Your task to perform on an android device: change the clock display to analog Image 0: 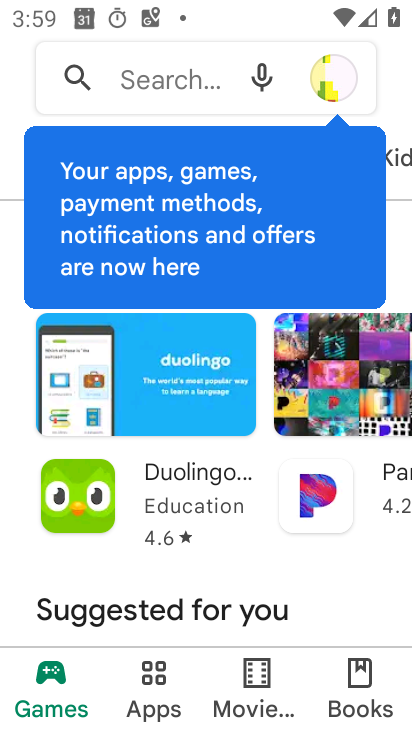
Step 0: press home button
Your task to perform on an android device: change the clock display to analog Image 1: 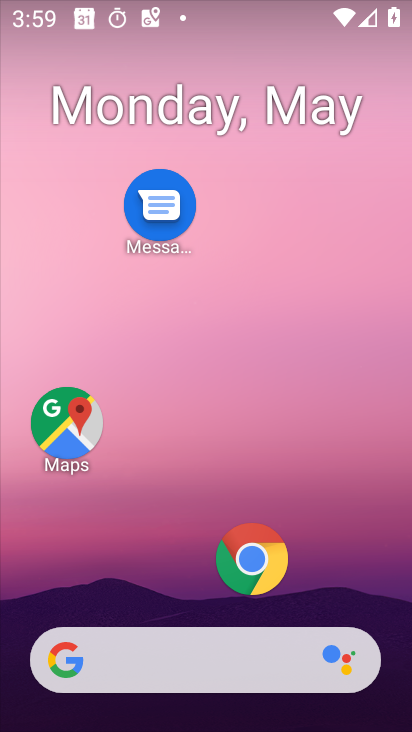
Step 1: drag from (110, 362) to (121, 211)
Your task to perform on an android device: change the clock display to analog Image 2: 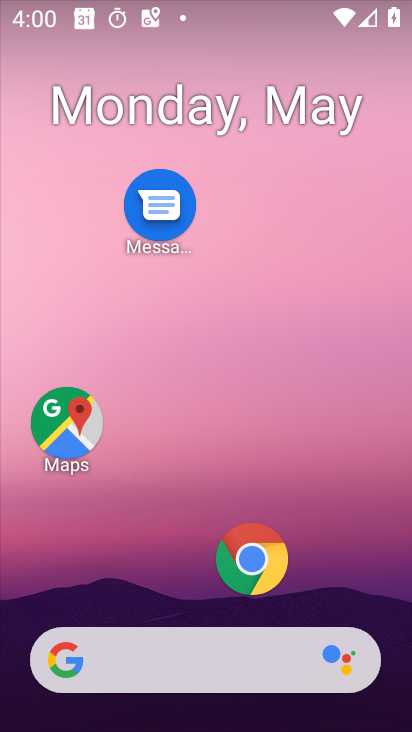
Step 2: drag from (187, 580) to (209, 190)
Your task to perform on an android device: change the clock display to analog Image 3: 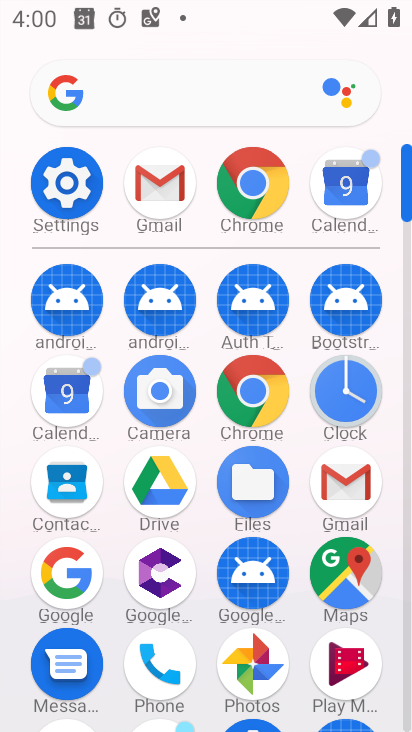
Step 3: click (356, 401)
Your task to perform on an android device: change the clock display to analog Image 4: 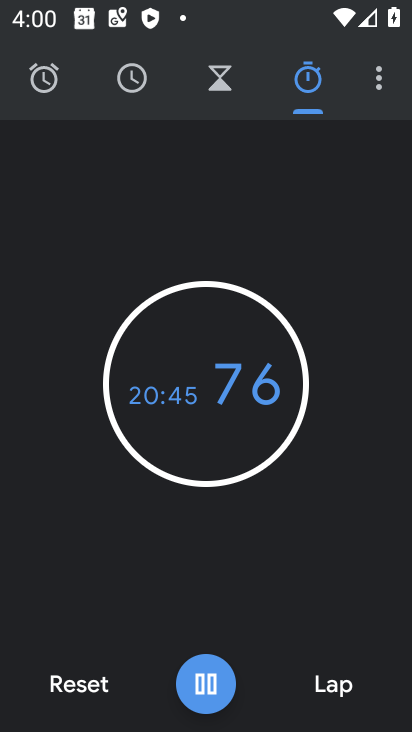
Step 4: click (381, 75)
Your task to perform on an android device: change the clock display to analog Image 5: 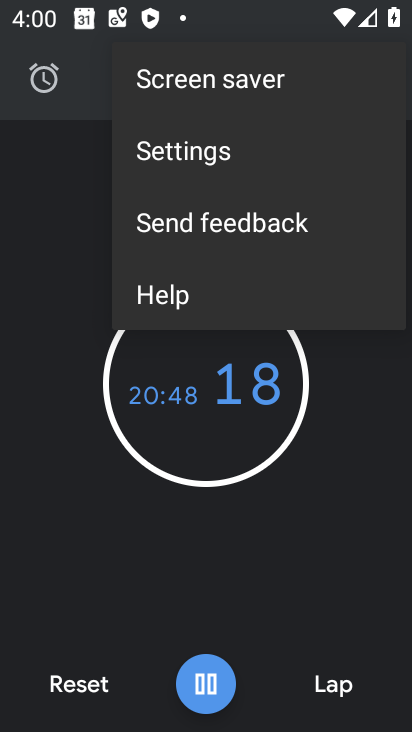
Step 5: click (174, 158)
Your task to perform on an android device: change the clock display to analog Image 6: 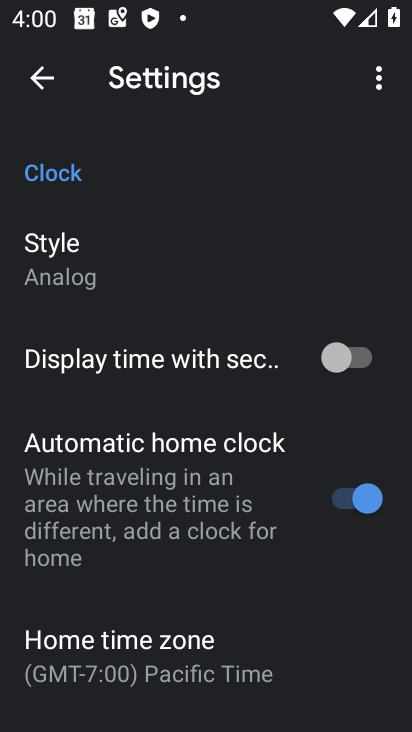
Step 6: click (70, 255)
Your task to perform on an android device: change the clock display to analog Image 7: 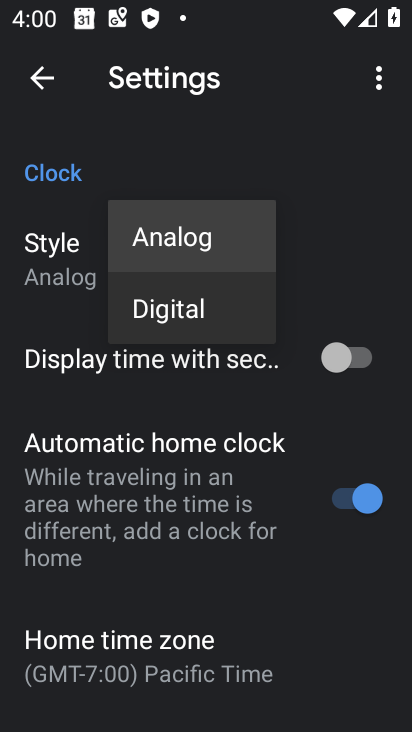
Step 7: task complete